Your task to perform on an android device: Clear the cart on bestbuy.com. Add usb-a to the cart on bestbuy.com, then select checkout. Image 0: 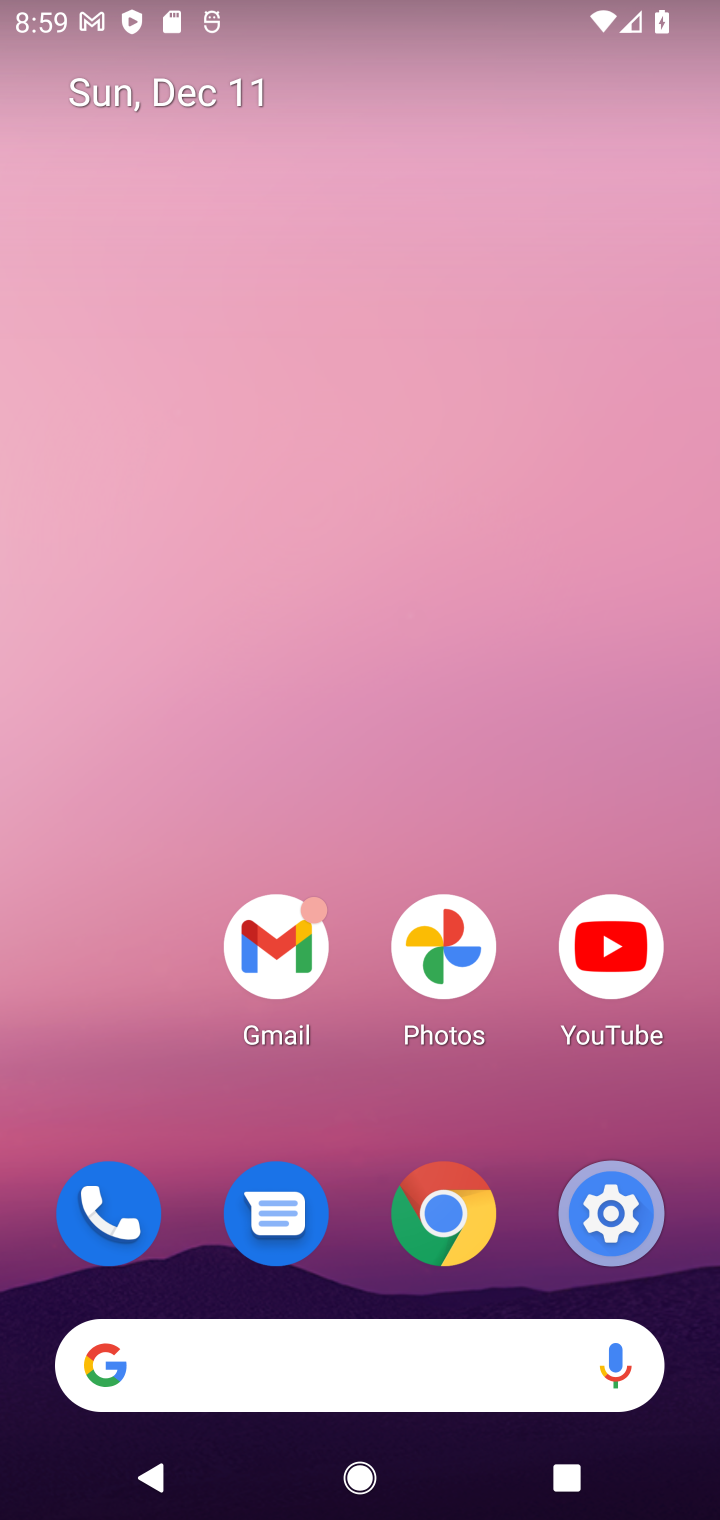
Step 0: click (351, 1339)
Your task to perform on an android device: Clear the cart on bestbuy.com. Add usb-a to the cart on bestbuy.com, then select checkout. Image 1: 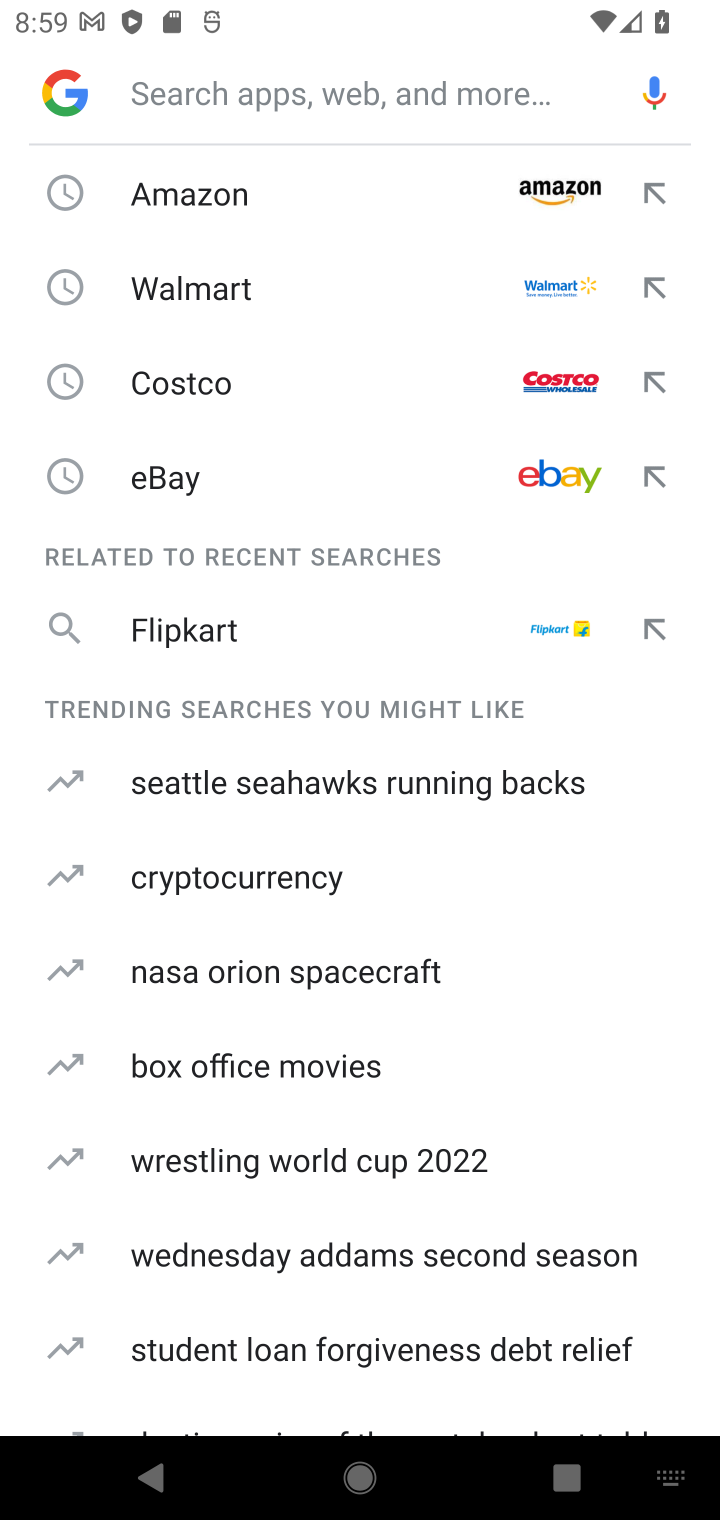
Step 1: type "bestbuy"
Your task to perform on an android device: Clear the cart on bestbuy.com. Add usb-a to the cart on bestbuy.com, then select checkout. Image 2: 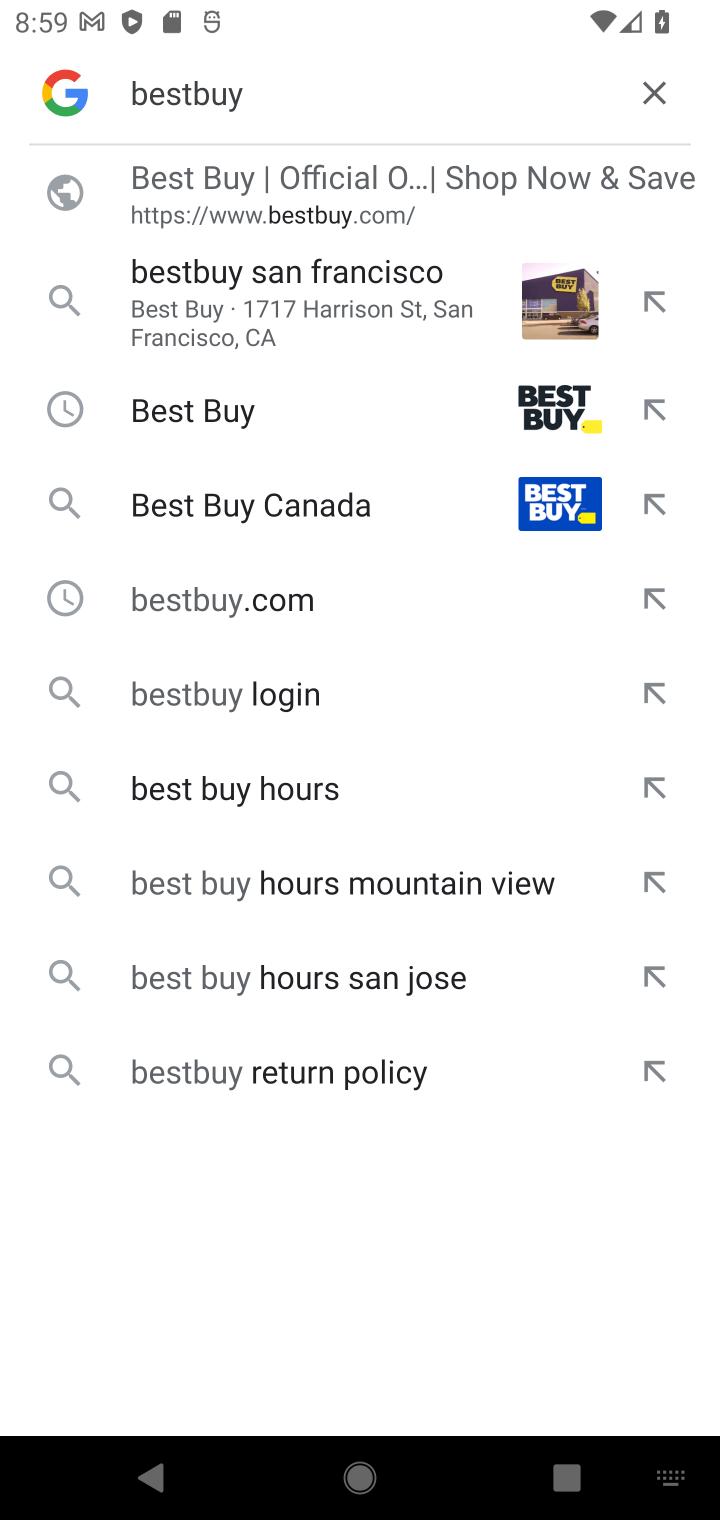
Step 2: click (309, 217)
Your task to perform on an android device: Clear the cart on bestbuy.com. Add usb-a to the cart on bestbuy.com, then select checkout. Image 3: 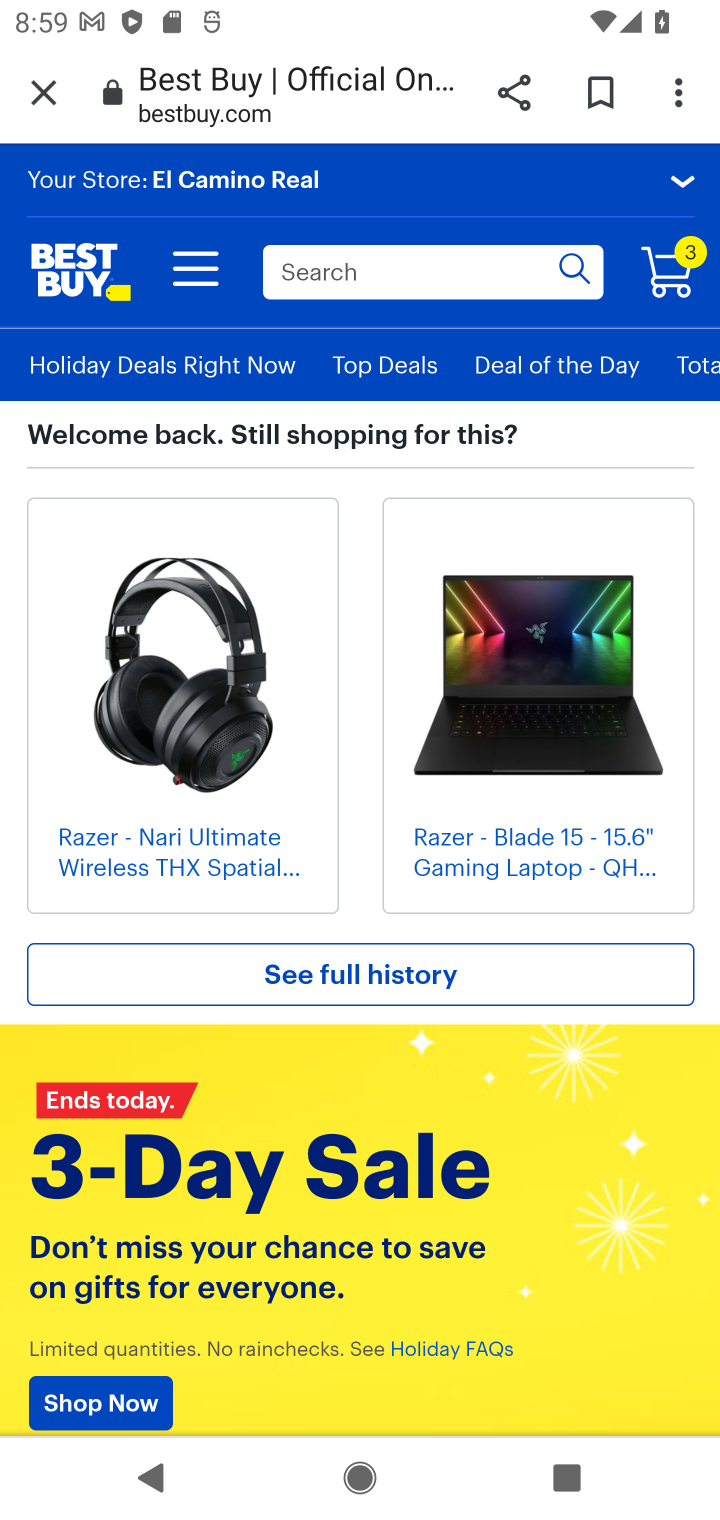
Step 3: click (208, 790)
Your task to perform on an android device: Clear the cart on bestbuy.com. Add usb-a to the cart on bestbuy.com, then select checkout. Image 4: 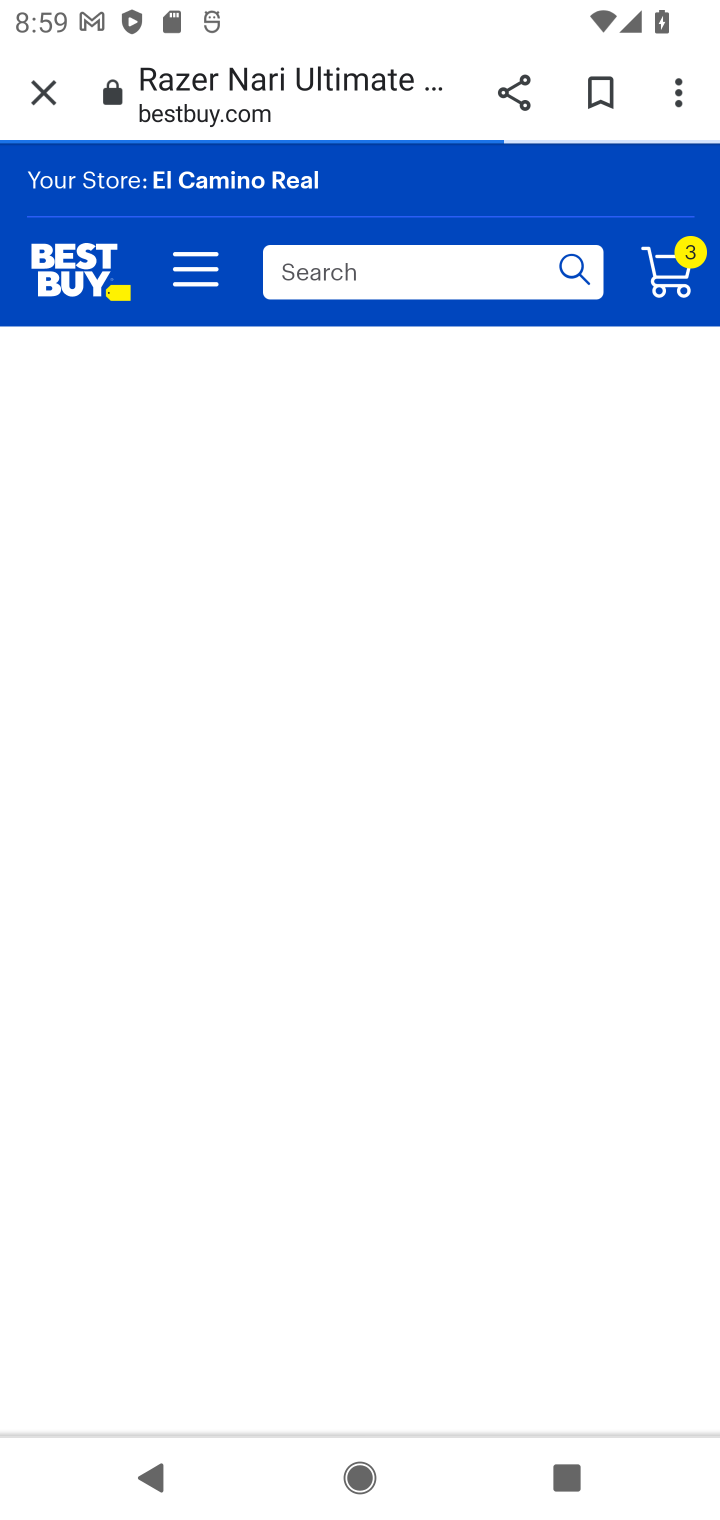
Step 4: click (443, 273)
Your task to perform on an android device: Clear the cart on bestbuy.com. Add usb-a to the cart on bestbuy.com, then select checkout. Image 5: 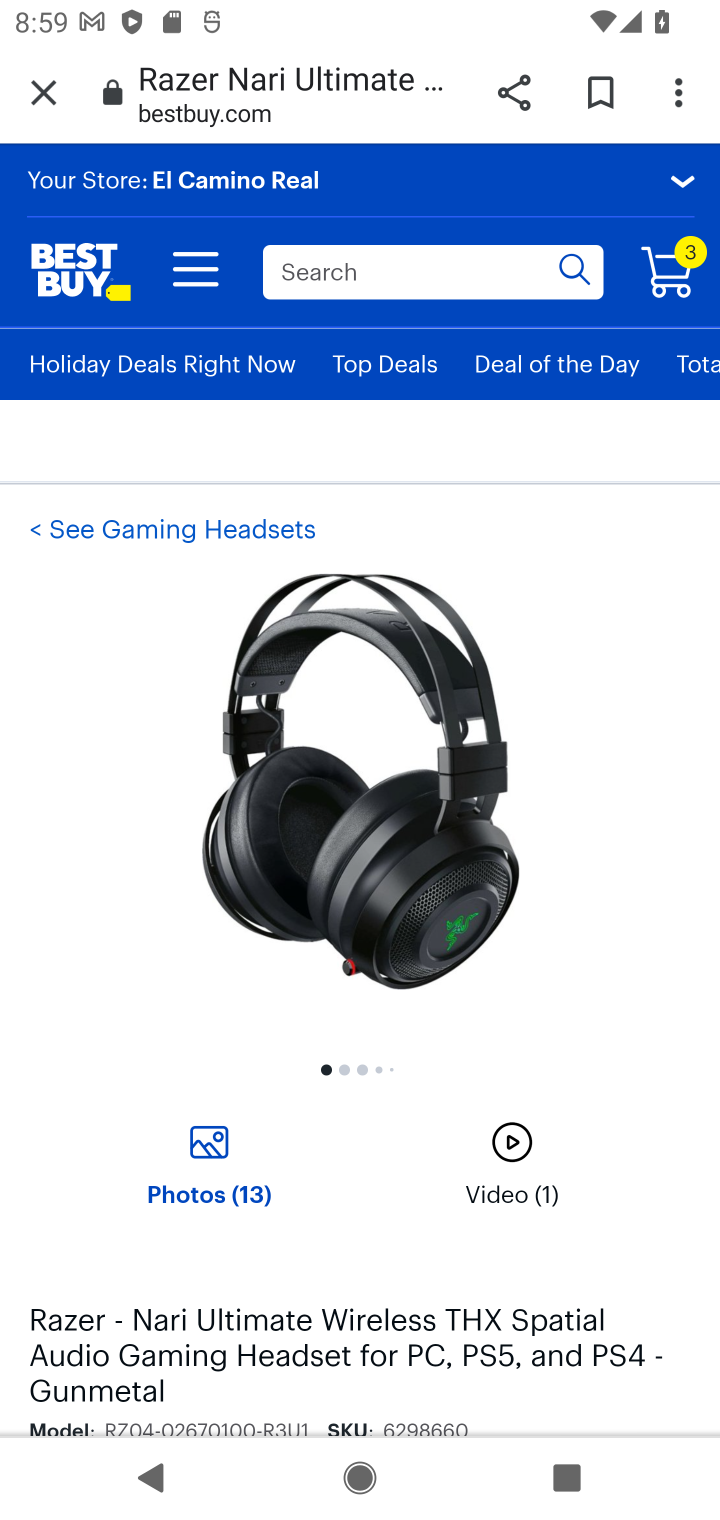
Step 5: type "usb-a "
Your task to perform on an android device: Clear the cart on bestbuy.com. Add usb-a to the cart on bestbuy.com, then select checkout. Image 6: 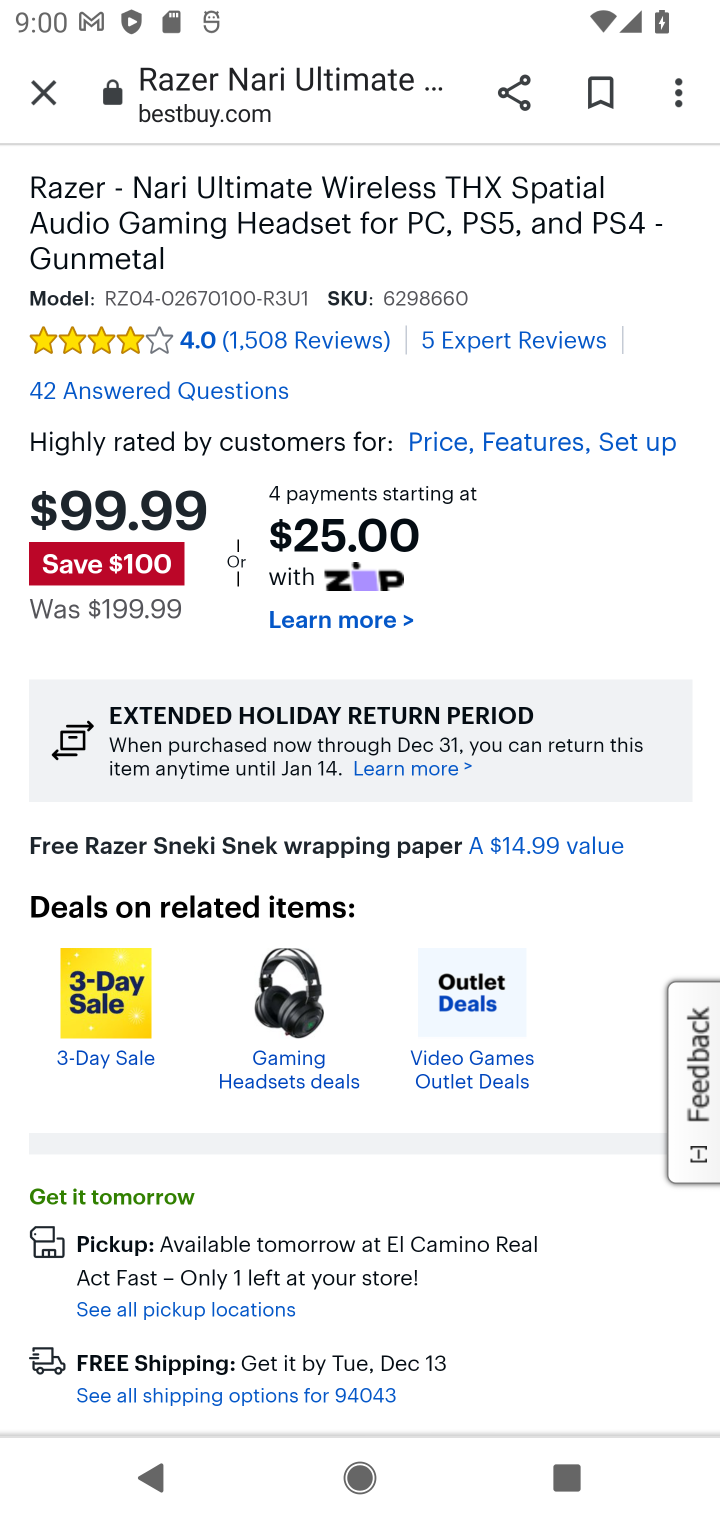
Step 6: task complete